Your task to perform on an android device: Open calendar and show me the second week of next month Image 0: 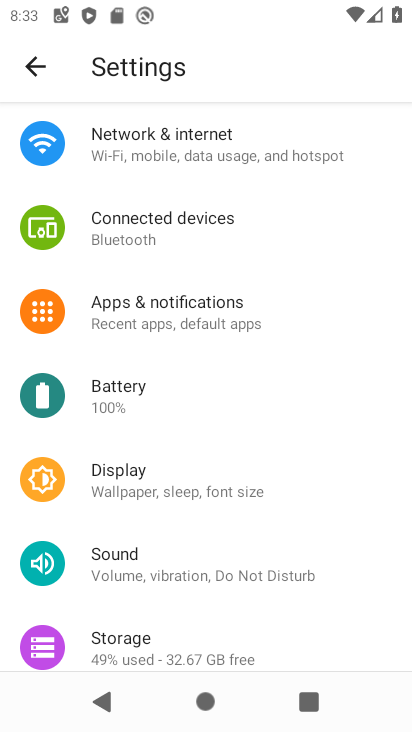
Step 0: press home button
Your task to perform on an android device: Open calendar and show me the second week of next month Image 1: 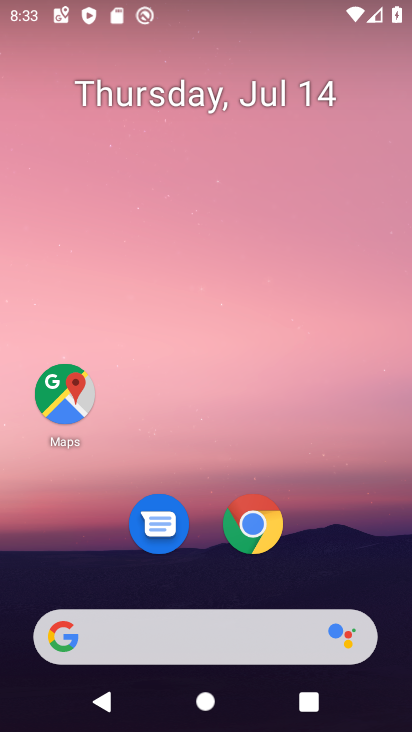
Step 1: drag from (313, 532) to (310, 60)
Your task to perform on an android device: Open calendar and show me the second week of next month Image 2: 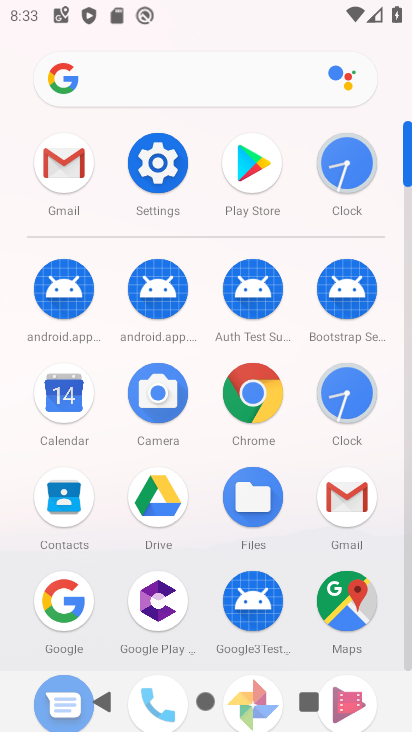
Step 2: click (73, 395)
Your task to perform on an android device: Open calendar and show me the second week of next month Image 3: 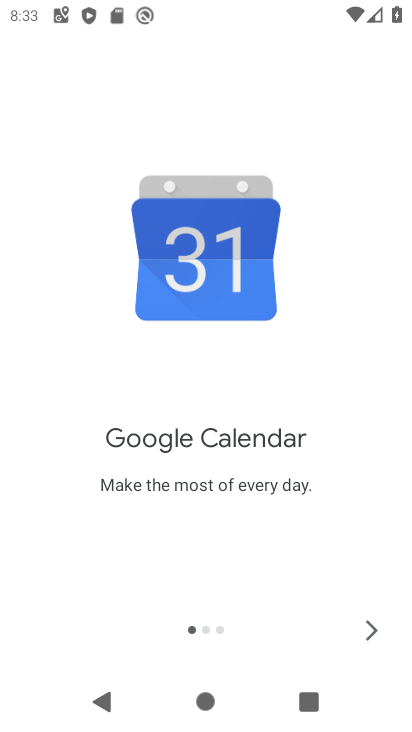
Step 3: click (361, 626)
Your task to perform on an android device: Open calendar and show me the second week of next month Image 4: 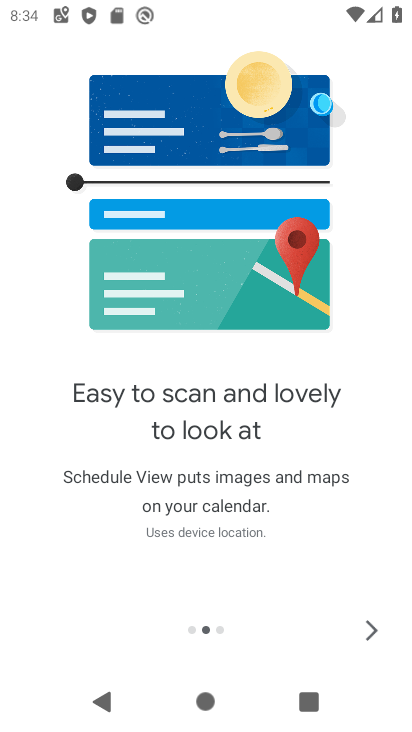
Step 4: click (369, 628)
Your task to perform on an android device: Open calendar and show me the second week of next month Image 5: 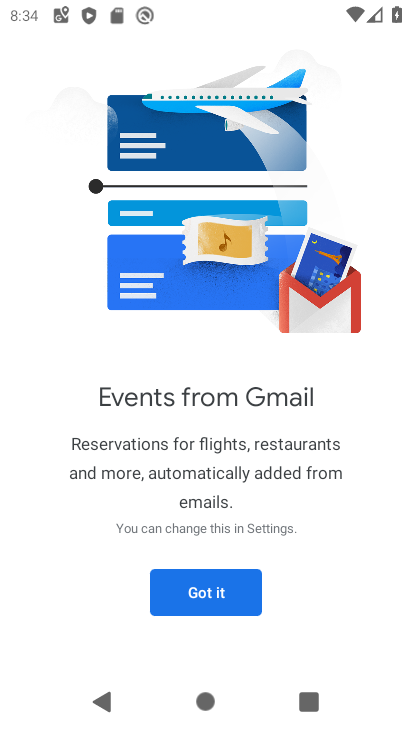
Step 5: click (243, 582)
Your task to perform on an android device: Open calendar and show me the second week of next month Image 6: 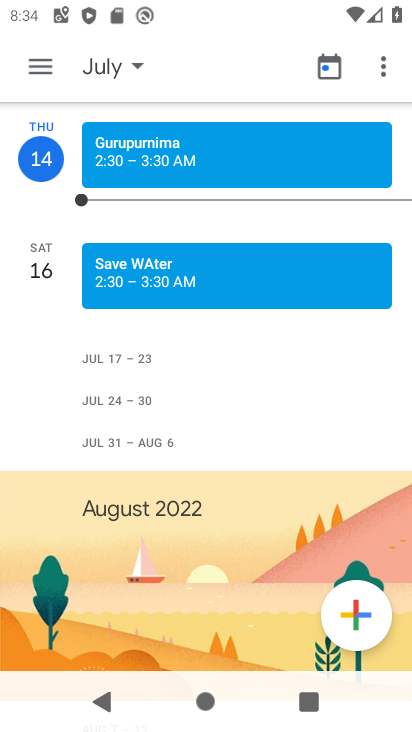
Step 6: click (42, 55)
Your task to perform on an android device: Open calendar and show me the second week of next month Image 7: 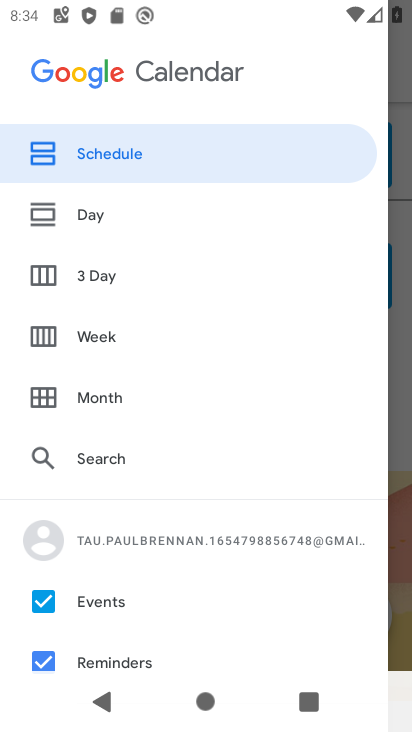
Step 7: click (45, 388)
Your task to perform on an android device: Open calendar and show me the second week of next month Image 8: 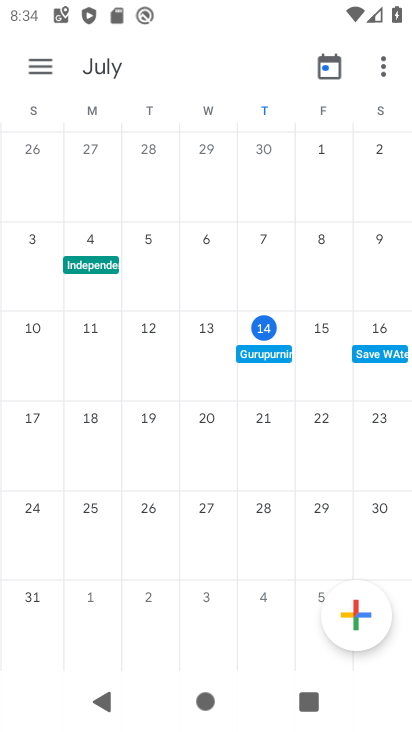
Step 8: drag from (366, 430) to (14, 435)
Your task to perform on an android device: Open calendar and show me the second week of next month Image 9: 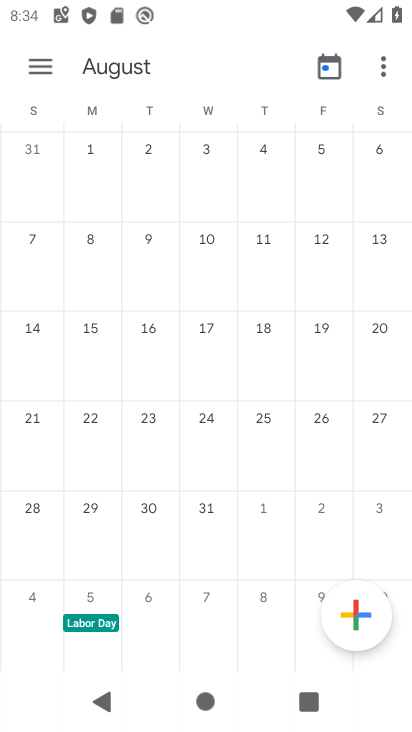
Step 9: click (41, 335)
Your task to perform on an android device: Open calendar and show me the second week of next month Image 10: 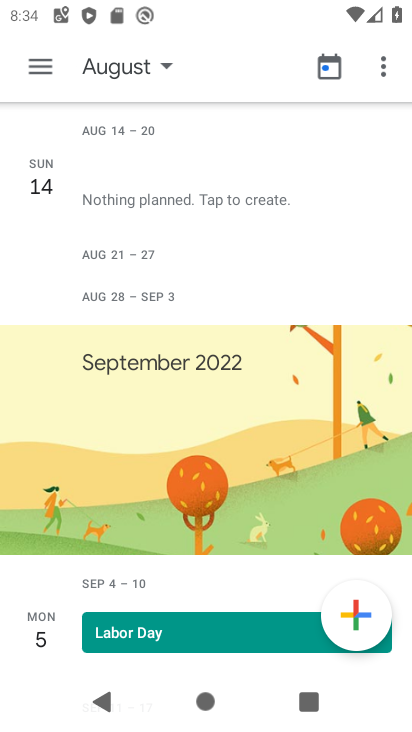
Step 10: click (46, 73)
Your task to perform on an android device: Open calendar and show me the second week of next month Image 11: 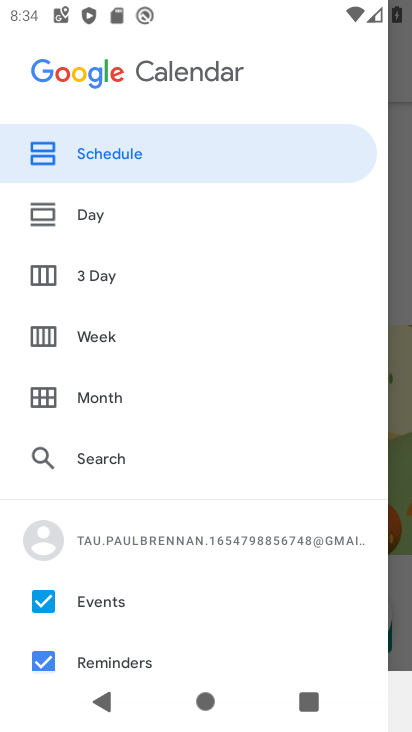
Step 11: click (53, 327)
Your task to perform on an android device: Open calendar and show me the second week of next month Image 12: 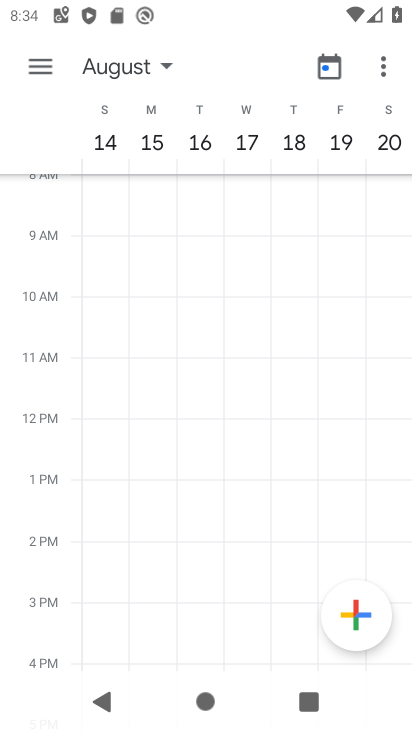
Step 12: task complete